Your task to perform on an android device: Check the weather Image 0: 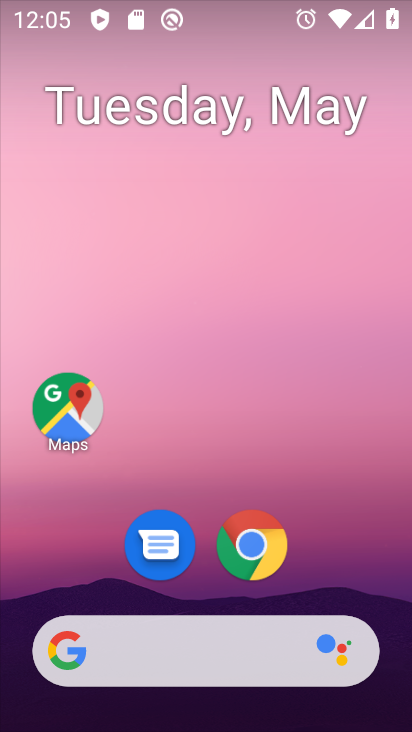
Step 0: click (240, 635)
Your task to perform on an android device: Check the weather Image 1: 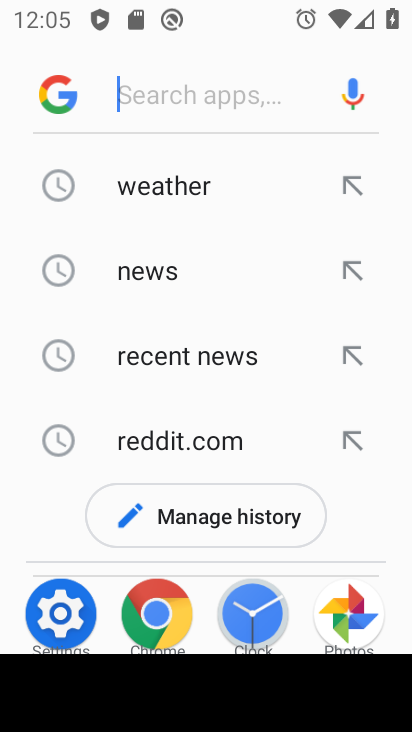
Step 1: click (280, 156)
Your task to perform on an android device: Check the weather Image 2: 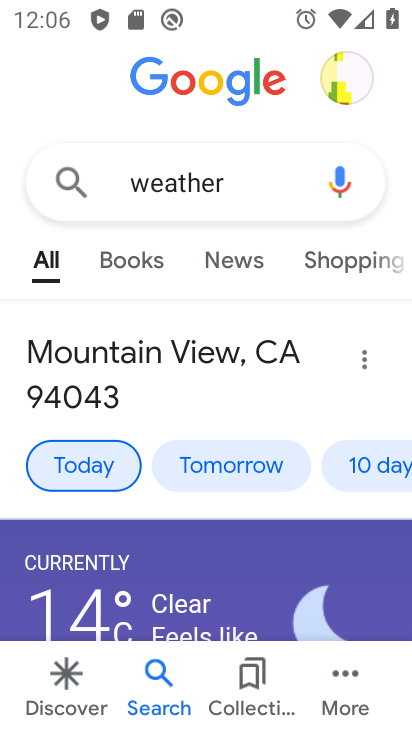
Step 2: task complete